Your task to perform on an android device: set the stopwatch Image 0: 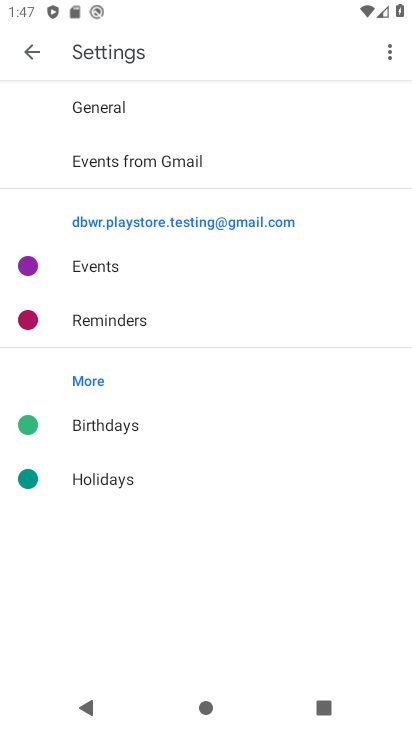
Step 0: press home button
Your task to perform on an android device: set the stopwatch Image 1: 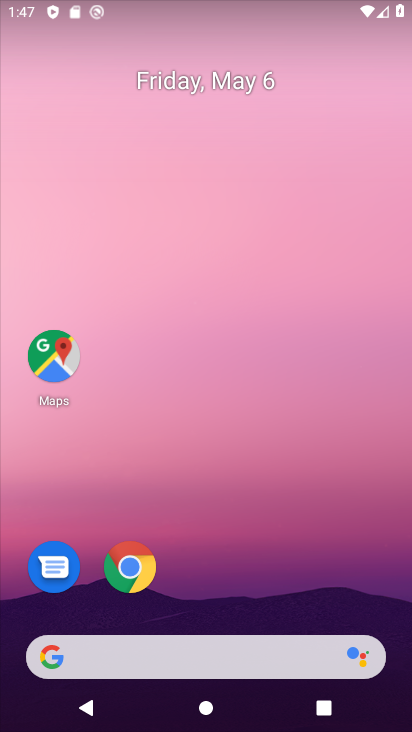
Step 1: drag from (392, 628) to (362, 53)
Your task to perform on an android device: set the stopwatch Image 2: 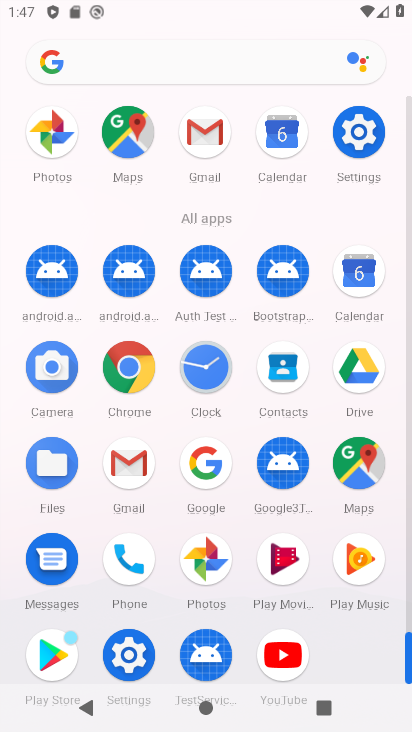
Step 2: click (407, 621)
Your task to perform on an android device: set the stopwatch Image 3: 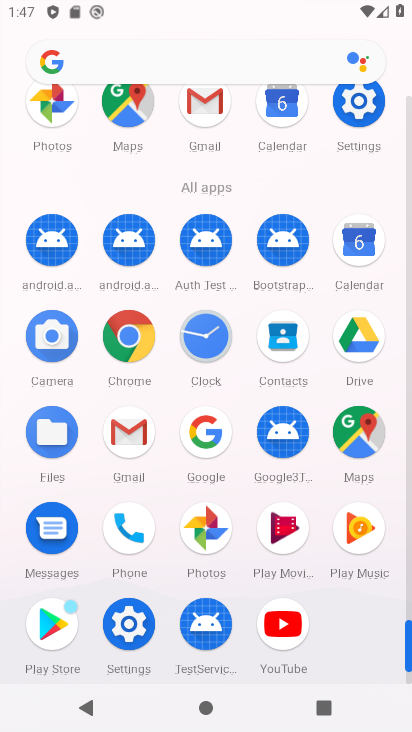
Step 3: click (202, 333)
Your task to perform on an android device: set the stopwatch Image 4: 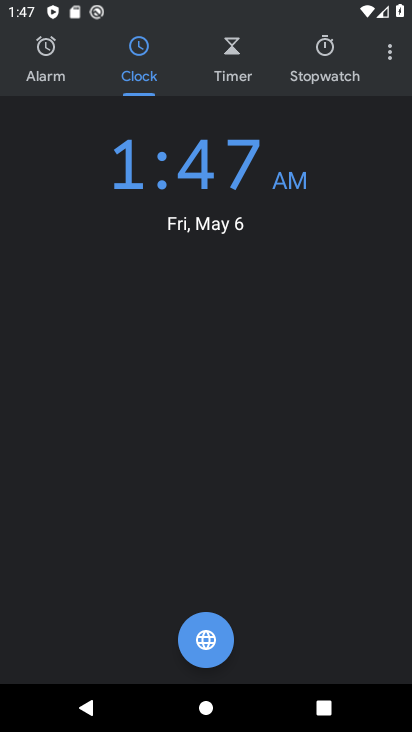
Step 4: click (324, 47)
Your task to perform on an android device: set the stopwatch Image 5: 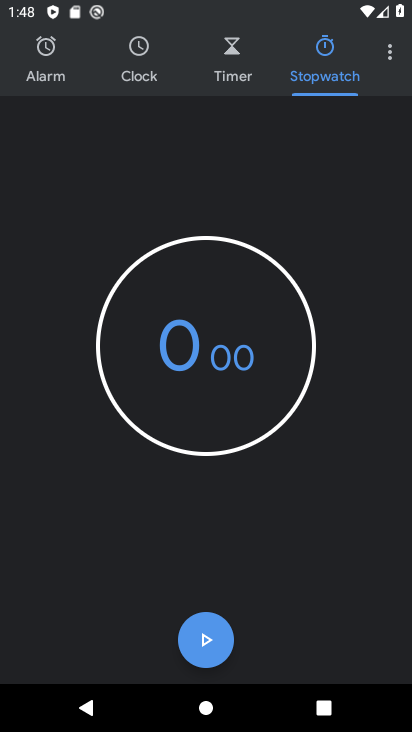
Step 5: task complete